Your task to perform on an android device: Go to settings Image 0: 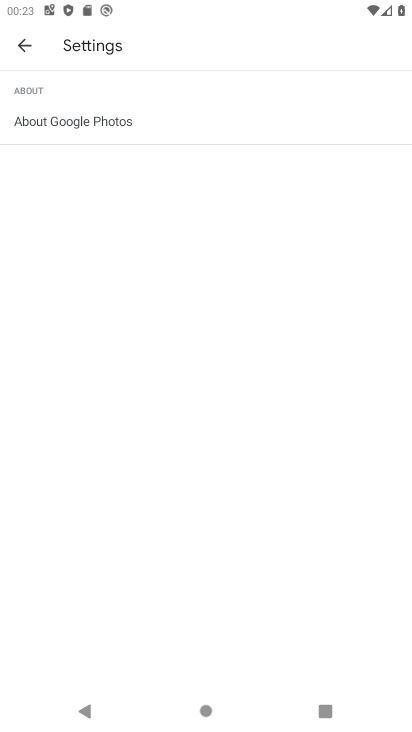
Step 0: press home button
Your task to perform on an android device: Go to settings Image 1: 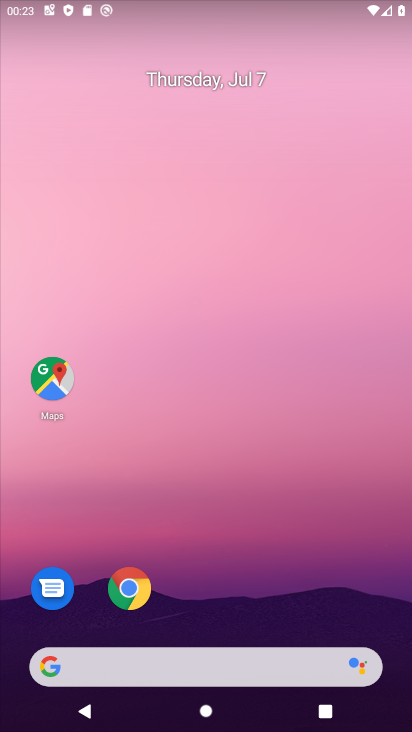
Step 1: drag from (240, 330) to (239, 159)
Your task to perform on an android device: Go to settings Image 2: 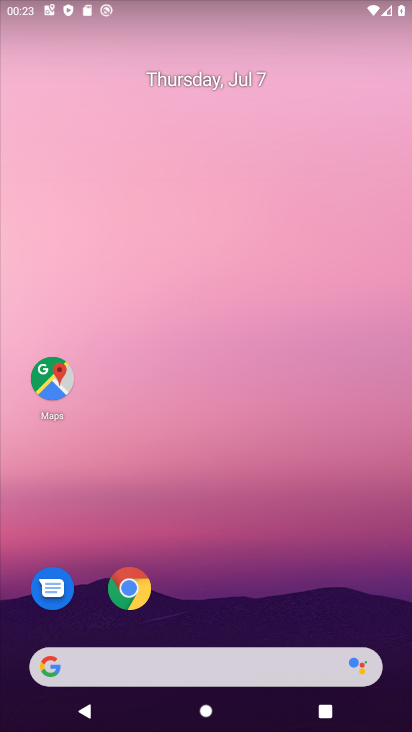
Step 2: drag from (249, 727) to (251, 31)
Your task to perform on an android device: Go to settings Image 3: 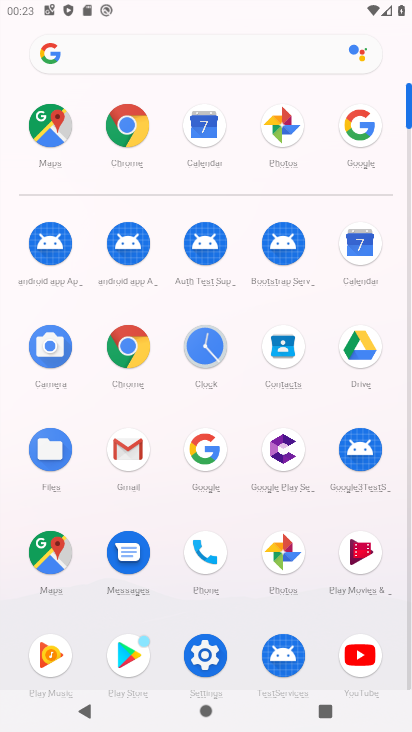
Step 3: click (199, 657)
Your task to perform on an android device: Go to settings Image 4: 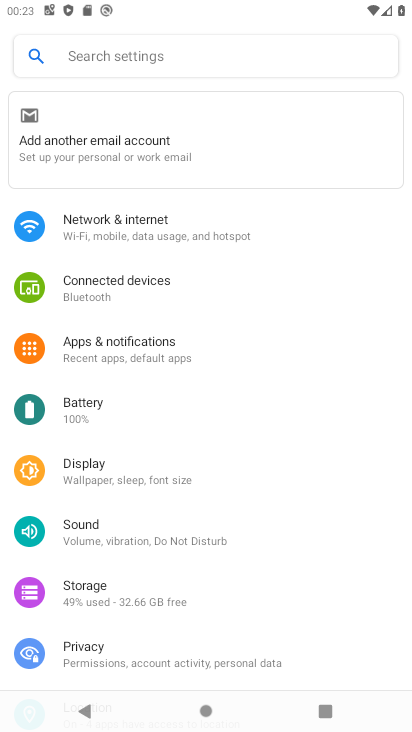
Step 4: task complete